Your task to perform on an android device: Open accessibility settings Image 0: 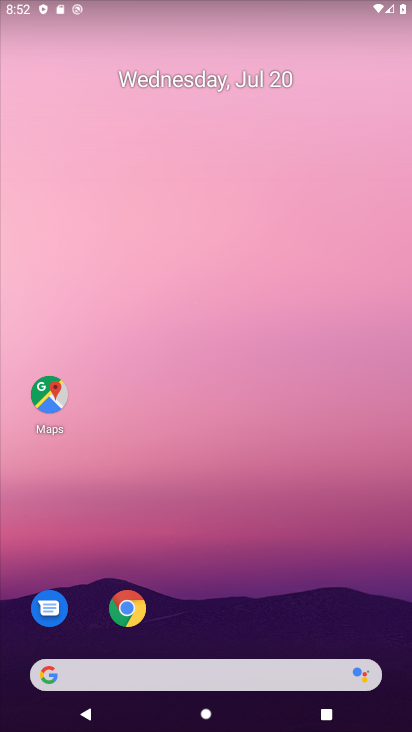
Step 0: press back button
Your task to perform on an android device: Open accessibility settings Image 1: 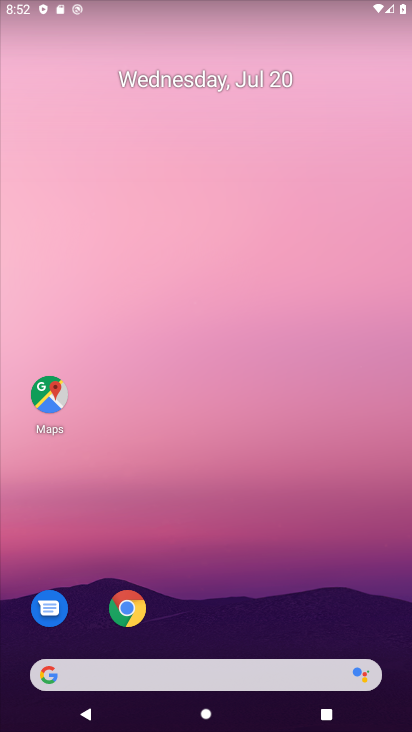
Step 1: click (253, 196)
Your task to perform on an android device: Open accessibility settings Image 2: 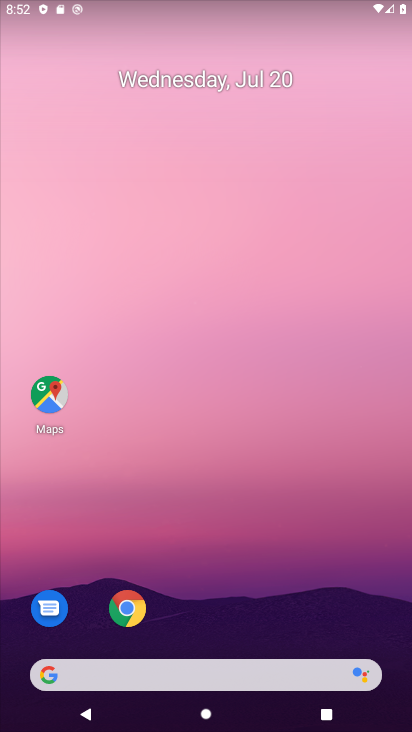
Step 2: drag from (189, 617) to (176, 142)
Your task to perform on an android device: Open accessibility settings Image 3: 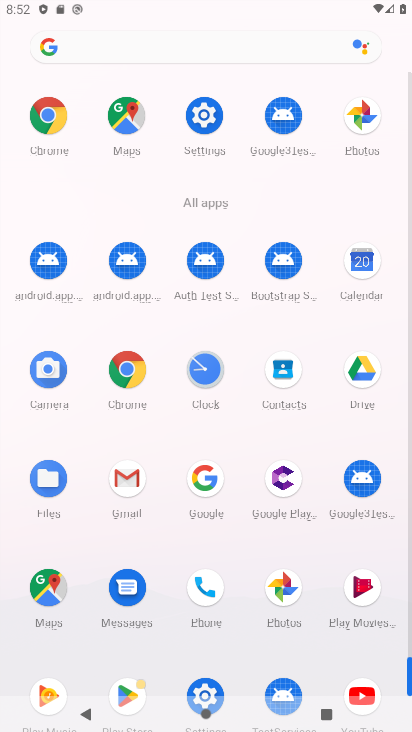
Step 3: click (201, 123)
Your task to perform on an android device: Open accessibility settings Image 4: 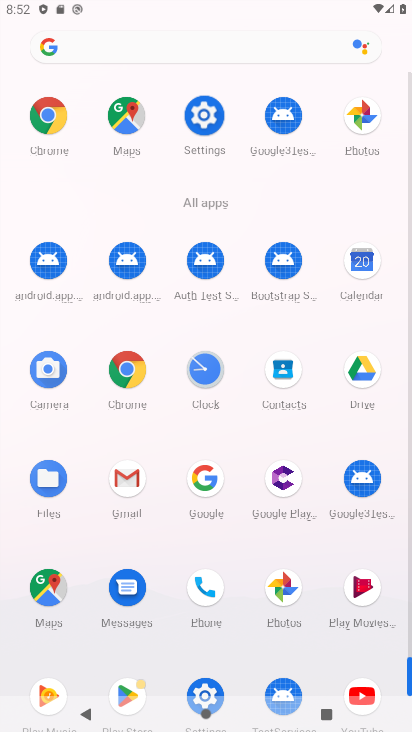
Step 4: click (201, 121)
Your task to perform on an android device: Open accessibility settings Image 5: 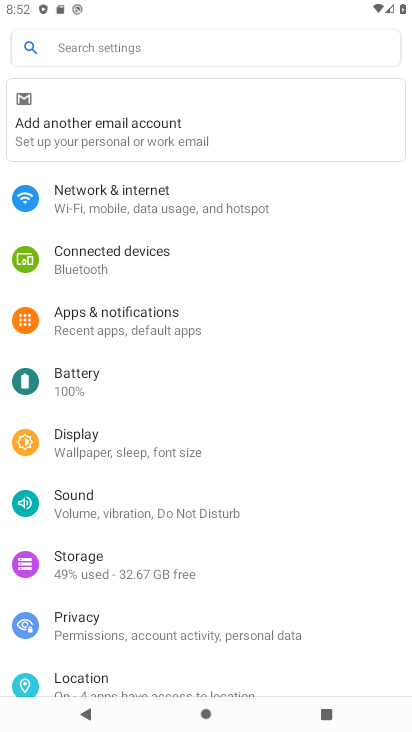
Step 5: drag from (154, 600) to (150, 321)
Your task to perform on an android device: Open accessibility settings Image 6: 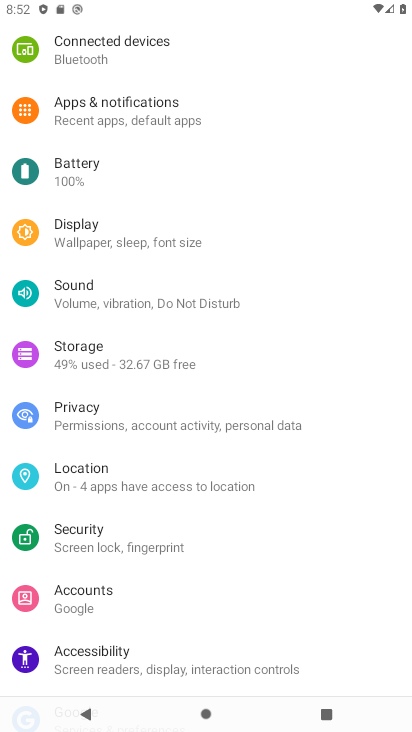
Step 6: drag from (120, 459) to (120, 273)
Your task to perform on an android device: Open accessibility settings Image 7: 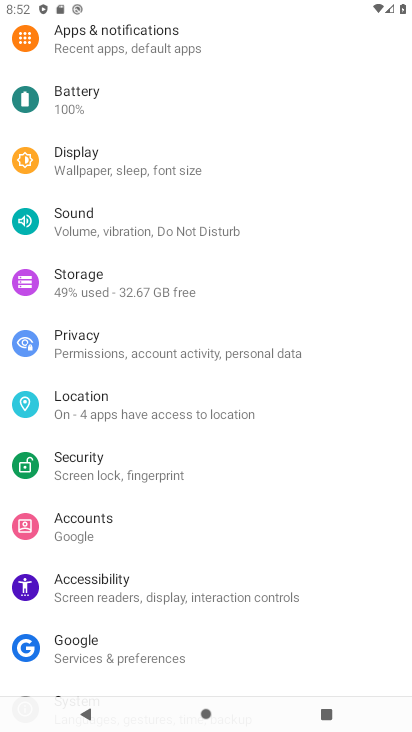
Step 7: drag from (136, 500) to (161, 255)
Your task to perform on an android device: Open accessibility settings Image 8: 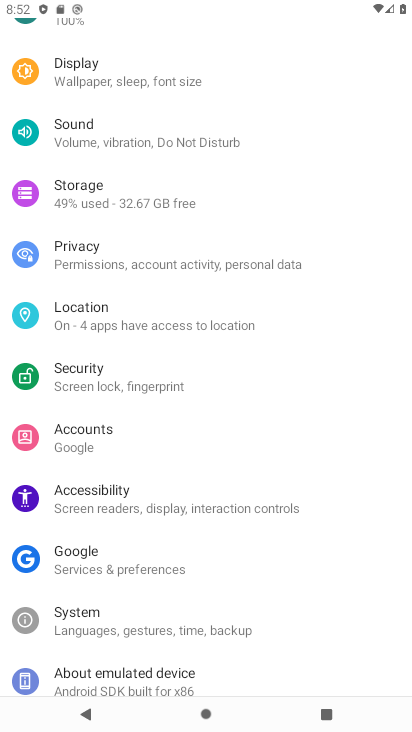
Step 8: click (91, 588)
Your task to perform on an android device: Open accessibility settings Image 9: 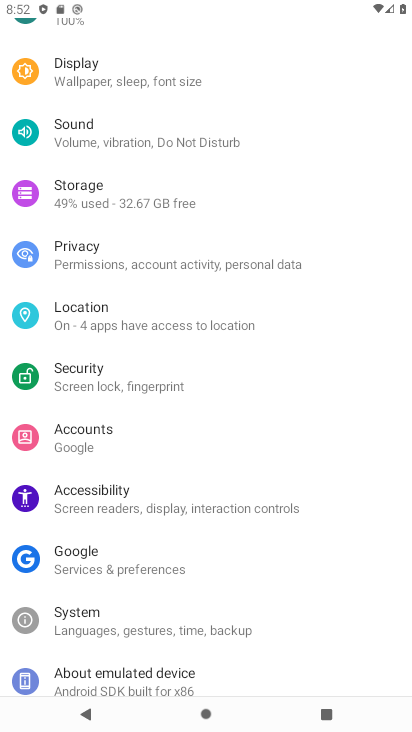
Step 9: click (89, 507)
Your task to perform on an android device: Open accessibility settings Image 10: 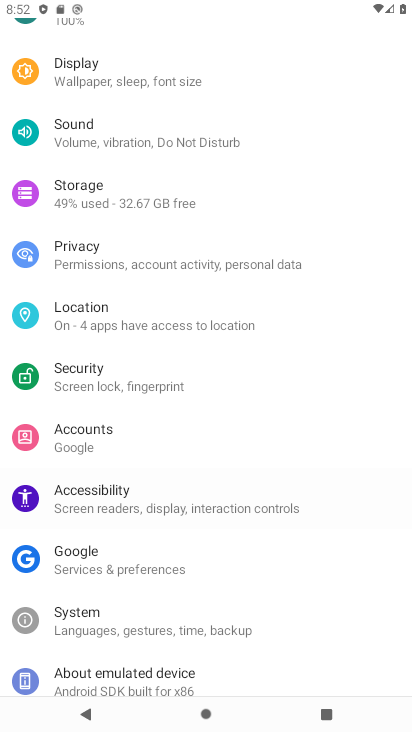
Step 10: click (94, 490)
Your task to perform on an android device: Open accessibility settings Image 11: 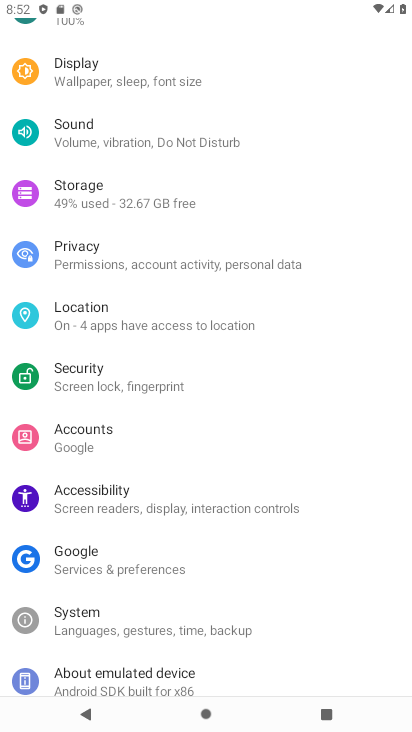
Step 11: click (94, 487)
Your task to perform on an android device: Open accessibility settings Image 12: 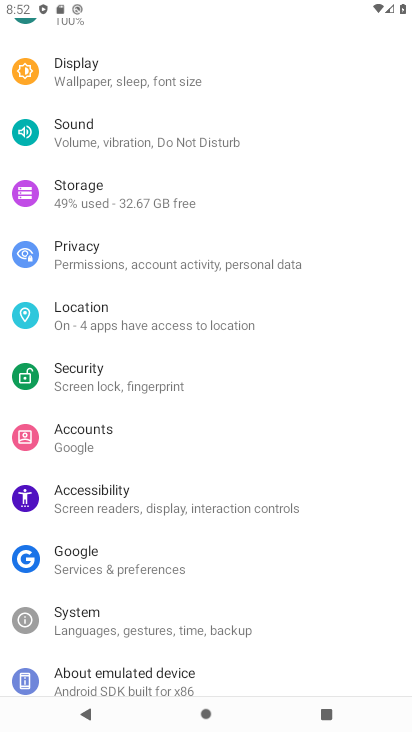
Step 12: click (96, 487)
Your task to perform on an android device: Open accessibility settings Image 13: 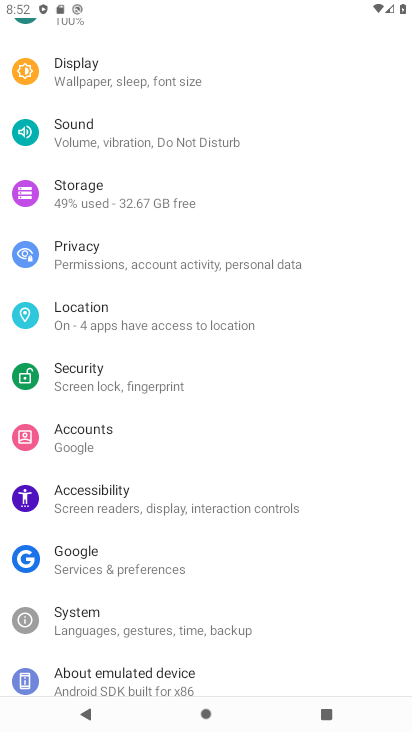
Step 13: click (103, 488)
Your task to perform on an android device: Open accessibility settings Image 14: 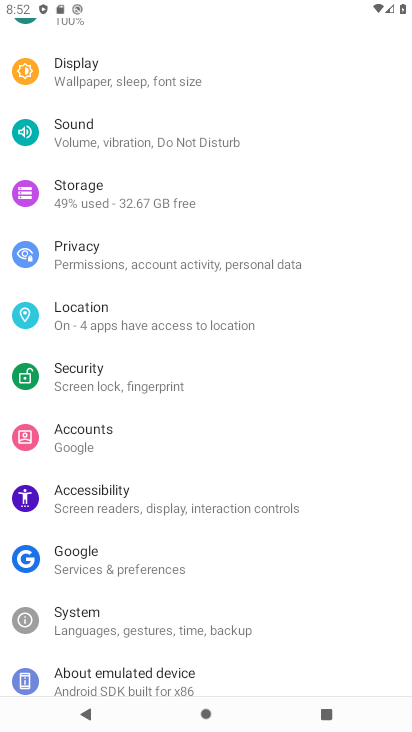
Step 14: click (107, 489)
Your task to perform on an android device: Open accessibility settings Image 15: 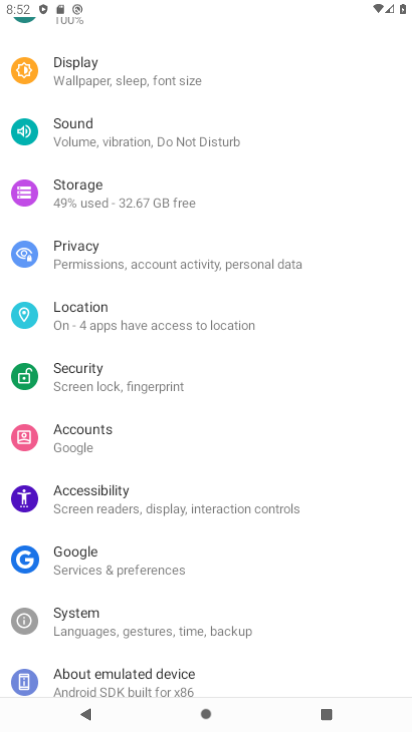
Step 15: click (109, 491)
Your task to perform on an android device: Open accessibility settings Image 16: 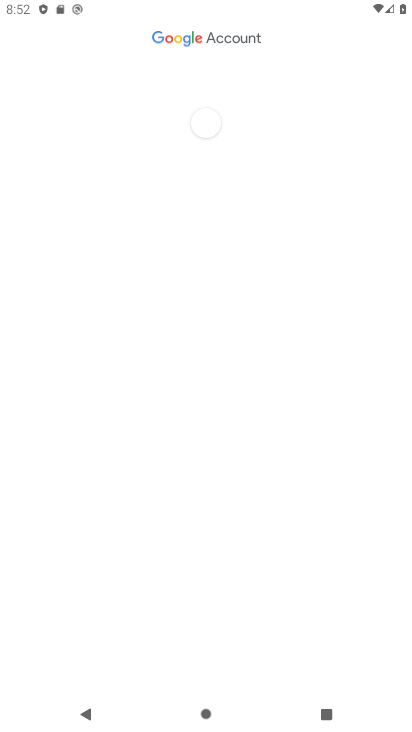
Step 16: click (201, 496)
Your task to perform on an android device: Open accessibility settings Image 17: 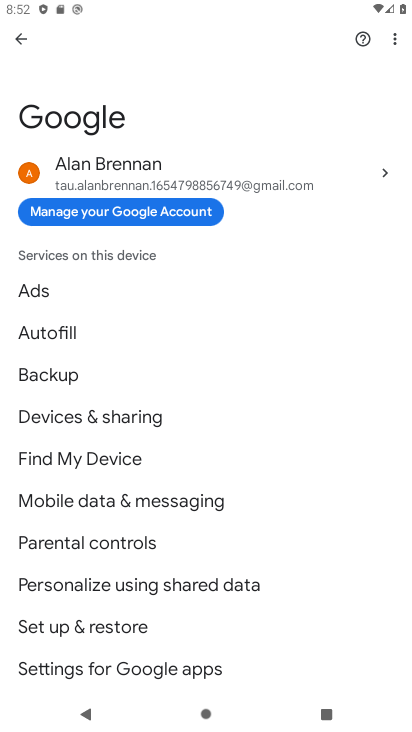
Step 17: click (23, 33)
Your task to perform on an android device: Open accessibility settings Image 18: 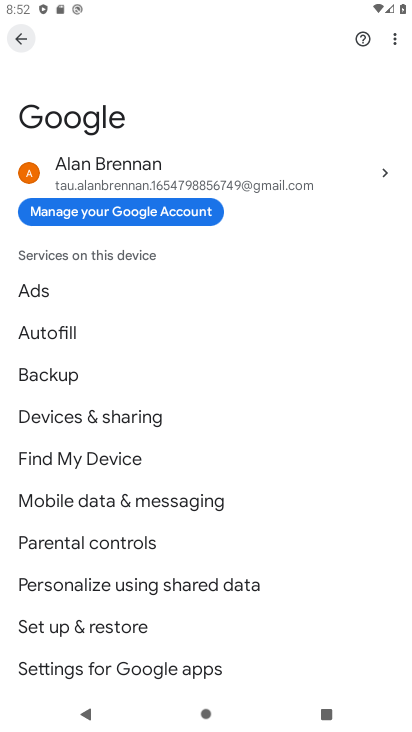
Step 18: click (17, 41)
Your task to perform on an android device: Open accessibility settings Image 19: 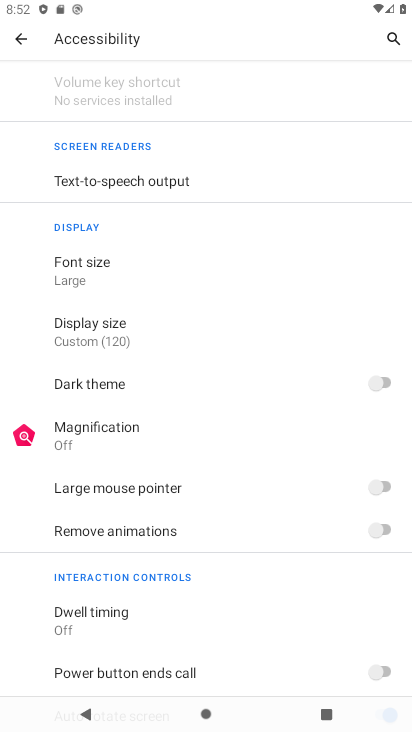
Step 19: task complete